Your task to perform on an android device: Open Google Chrome and click the shortcut for Amazon.com Image 0: 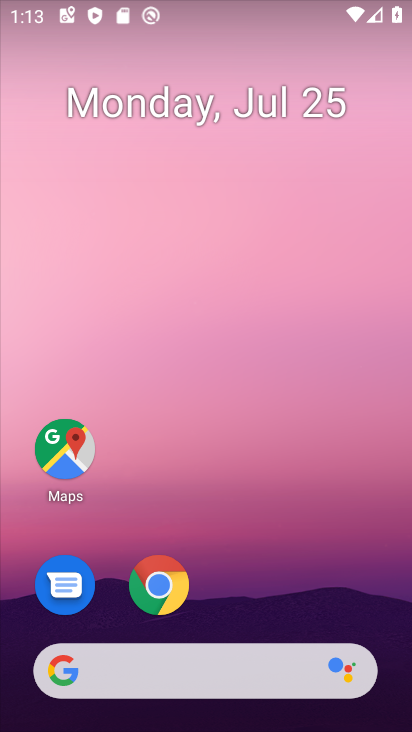
Step 0: click (152, 585)
Your task to perform on an android device: Open Google Chrome and click the shortcut for Amazon.com Image 1: 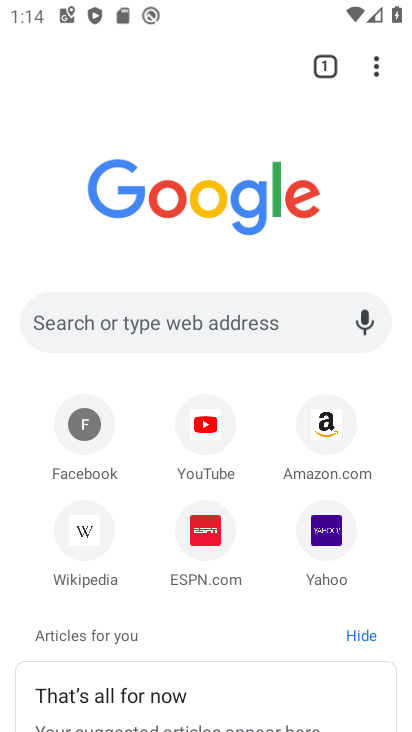
Step 1: click (324, 429)
Your task to perform on an android device: Open Google Chrome and click the shortcut for Amazon.com Image 2: 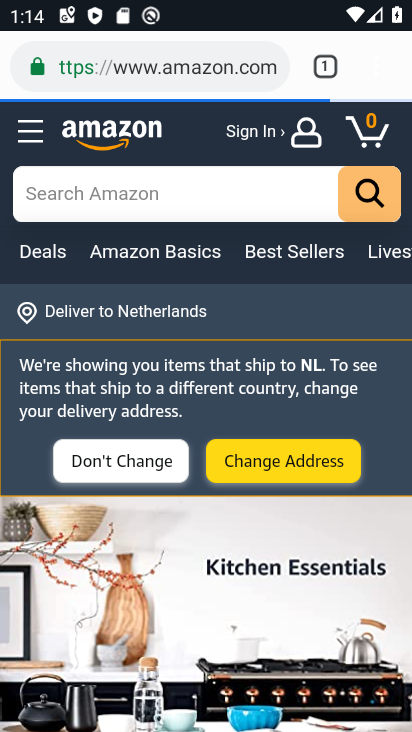
Step 2: task complete